Your task to perform on an android device: toggle pop-ups in chrome Image 0: 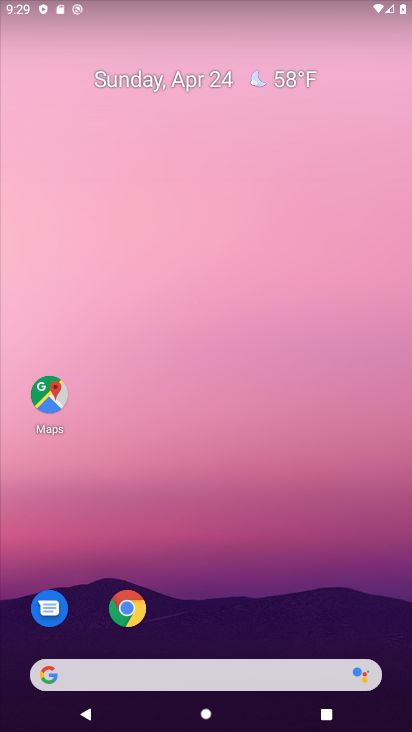
Step 0: drag from (245, 469) to (166, 3)
Your task to perform on an android device: toggle pop-ups in chrome Image 1: 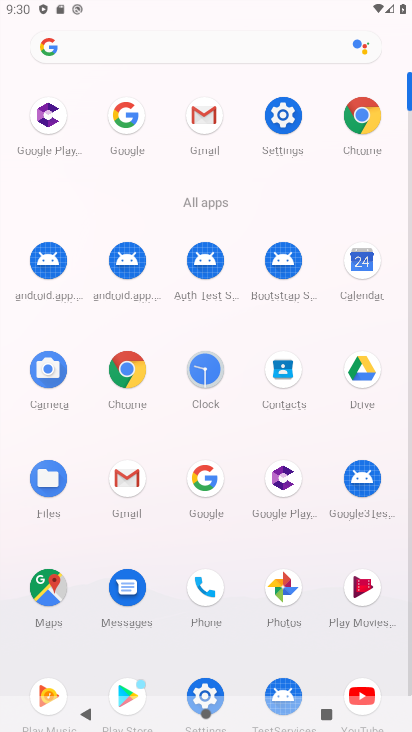
Step 1: click (371, 115)
Your task to perform on an android device: toggle pop-ups in chrome Image 2: 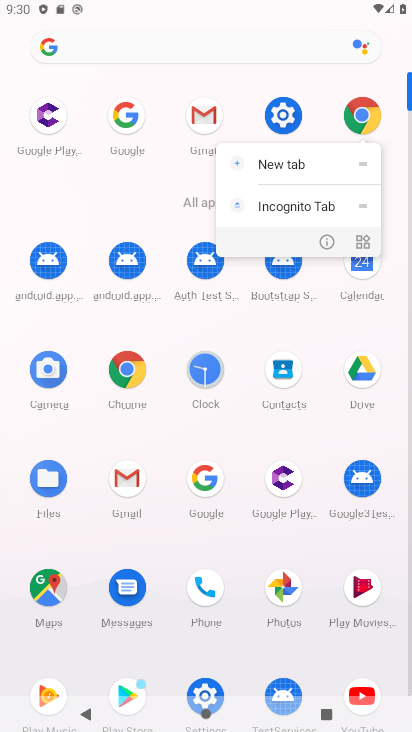
Step 2: click (366, 115)
Your task to perform on an android device: toggle pop-ups in chrome Image 3: 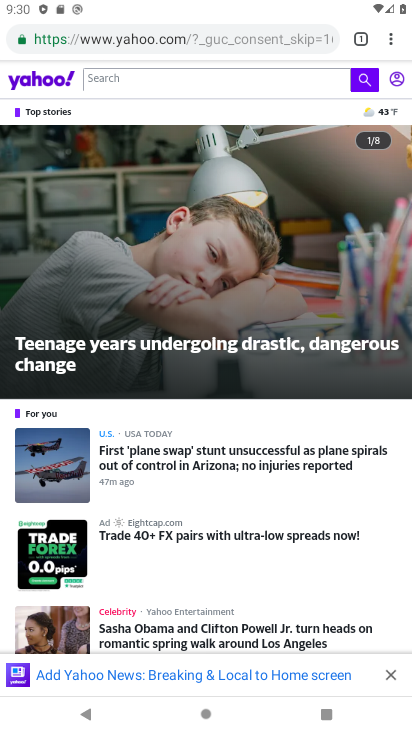
Step 3: drag from (384, 35) to (279, 482)
Your task to perform on an android device: toggle pop-ups in chrome Image 4: 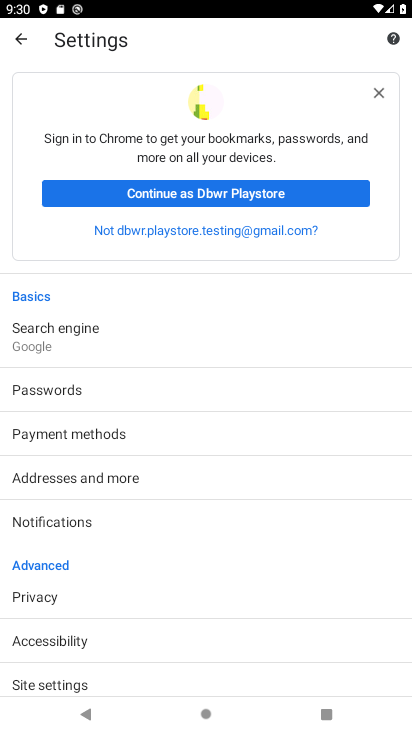
Step 4: drag from (221, 579) to (160, 190)
Your task to perform on an android device: toggle pop-ups in chrome Image 5: 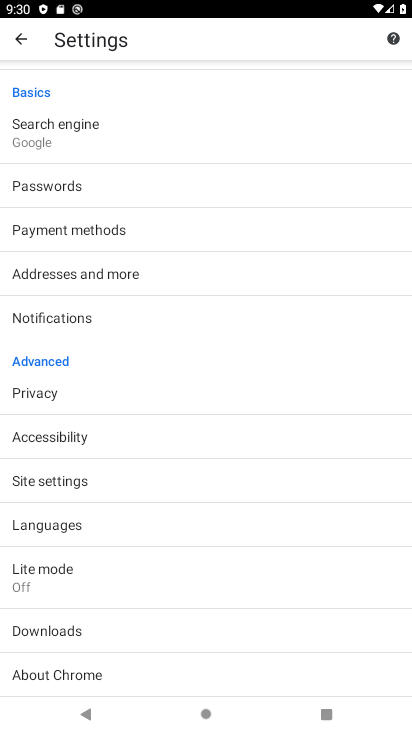
Step 5: click (35, 477)
Your task to perform on an android device: toggle pop-ups in chrome Image 6: 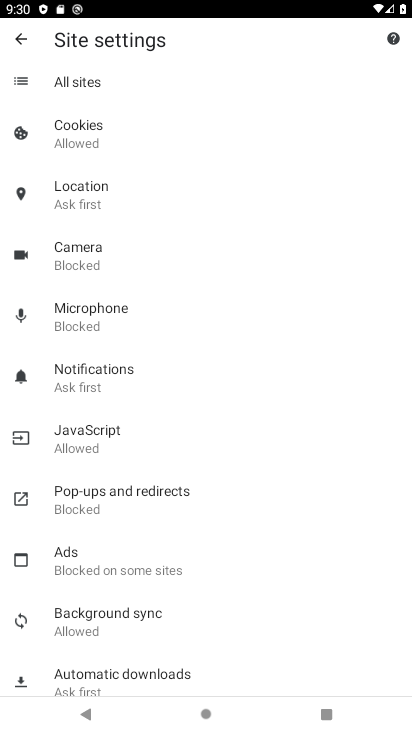
Step 6: drag from (176, 555) to (185, 414)
Your task to perform on an android device: toggle pop-ups in chrome Image 7: 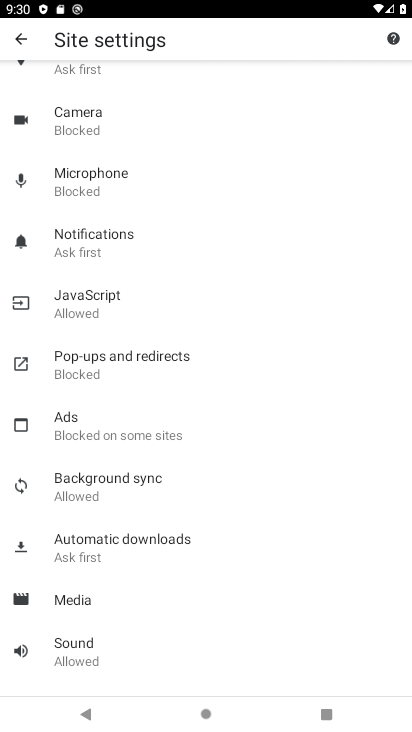
Step 7: click (87, 352)
Your task to perform on an android device: toggle pop-ups in chrome Image 8: 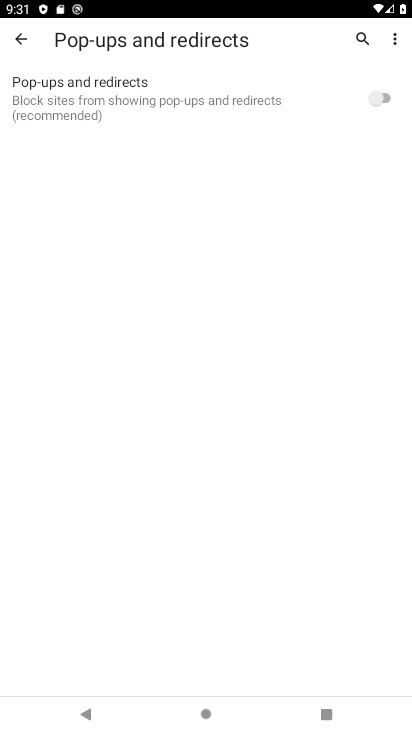
Step 8: click (378, 94)
Your task to perform on an android device: toggle pop-ups in chrome Image 9: 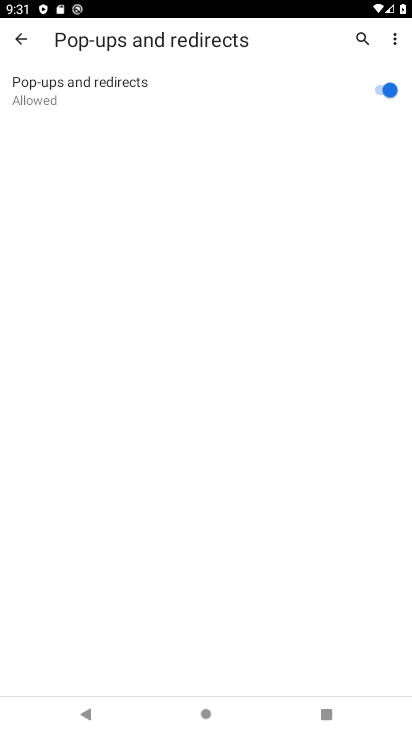
Step 9: task complete